Your task to perform on an android device: install app "Google Home" Image 0: 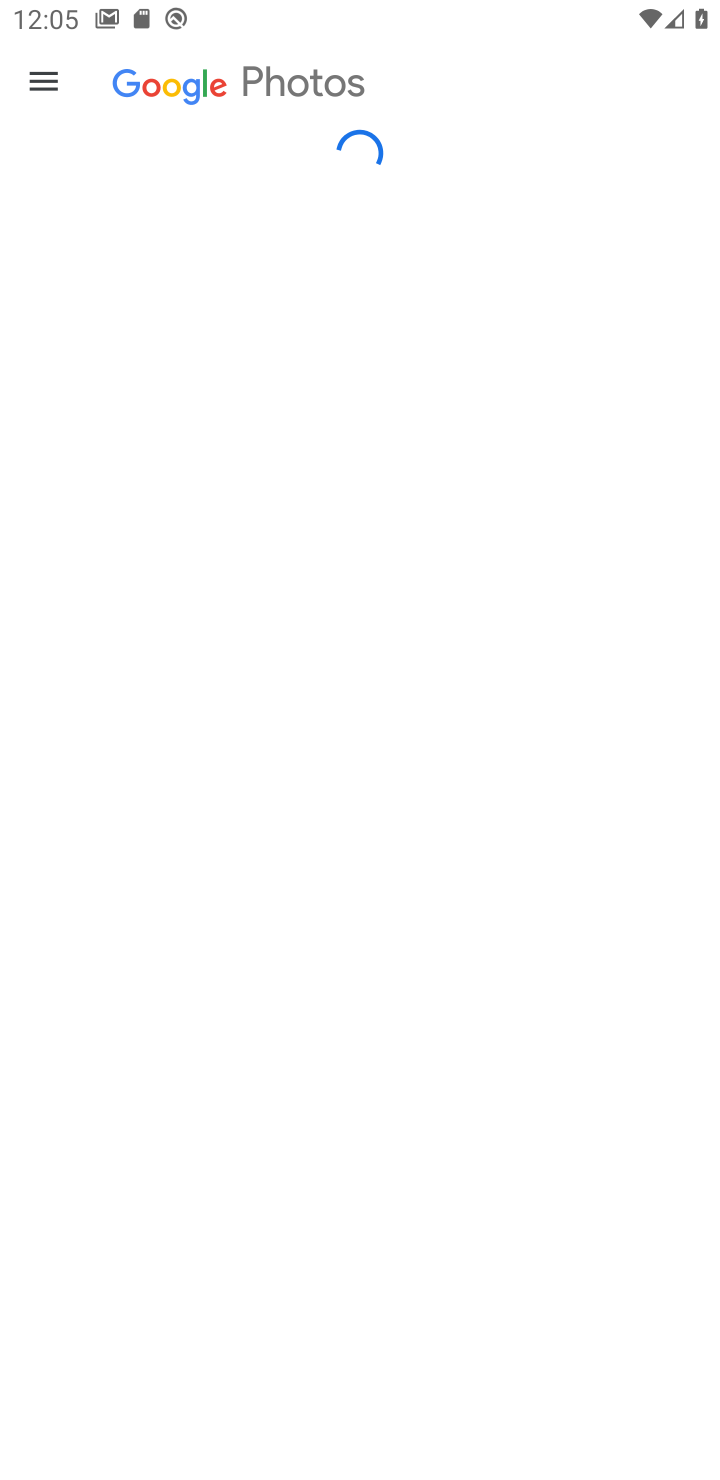
Step 0: press home button
Your task to perform on an android device: install app "Google Home" Image 1: 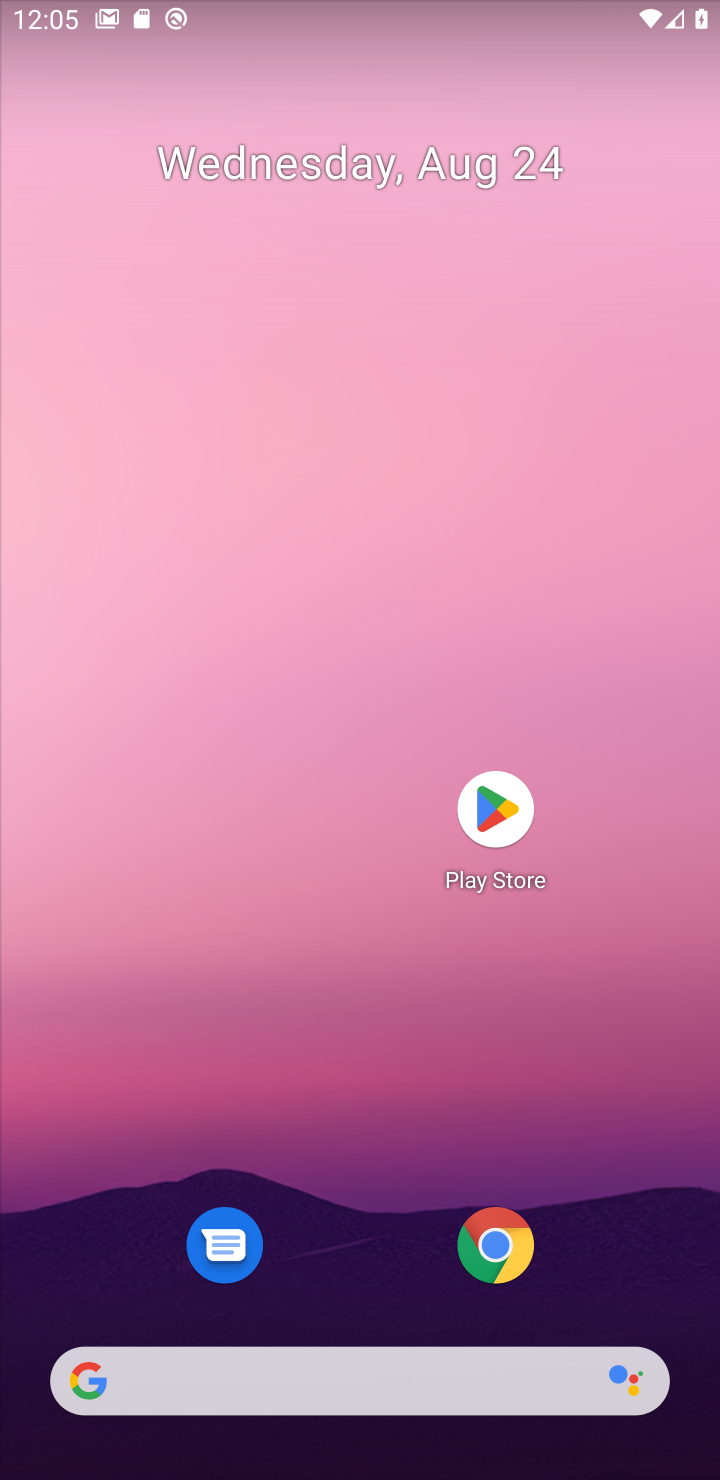
Step 1: click (493, 800)
Your task to perform on an android device: install app "Google Home" Image 2: 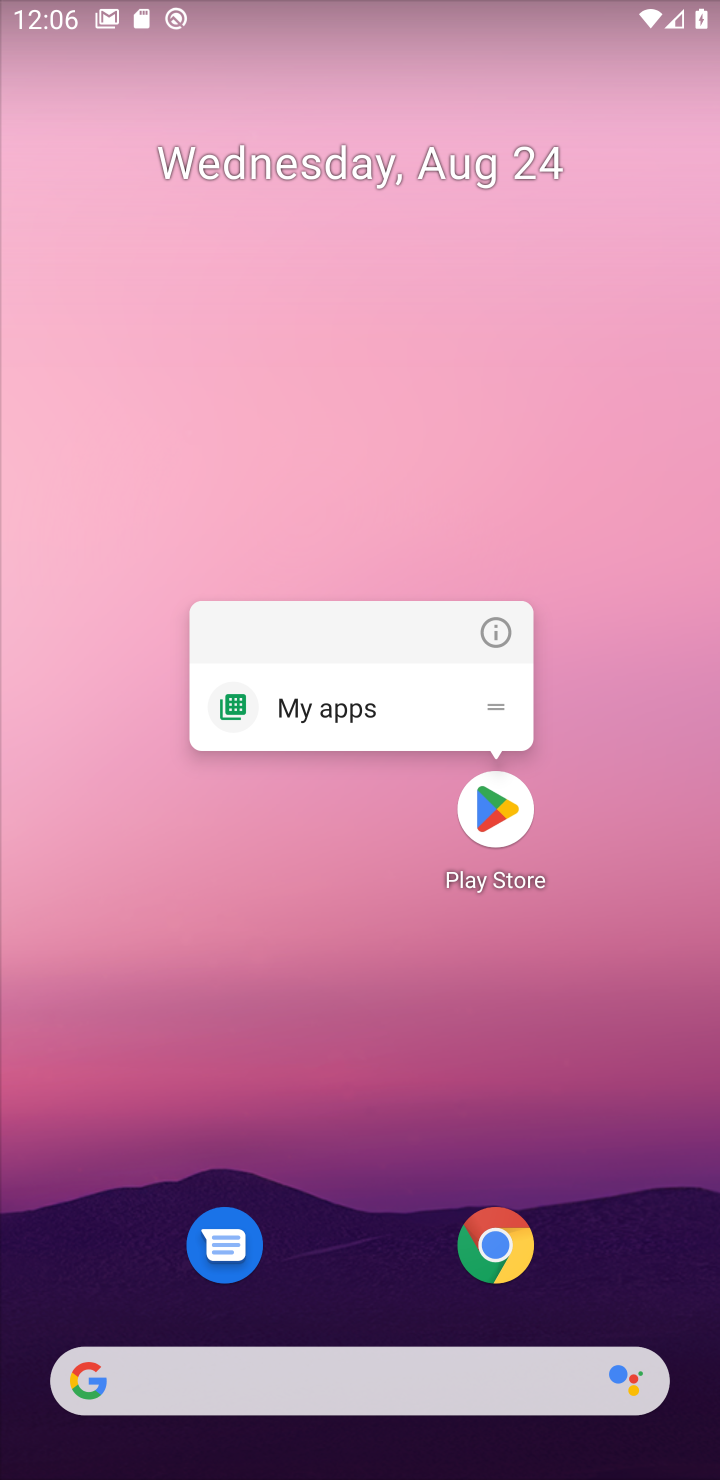
Step 2: click (493, 805)
Your task to perform on an android device: install app "Google Home" Image 3: 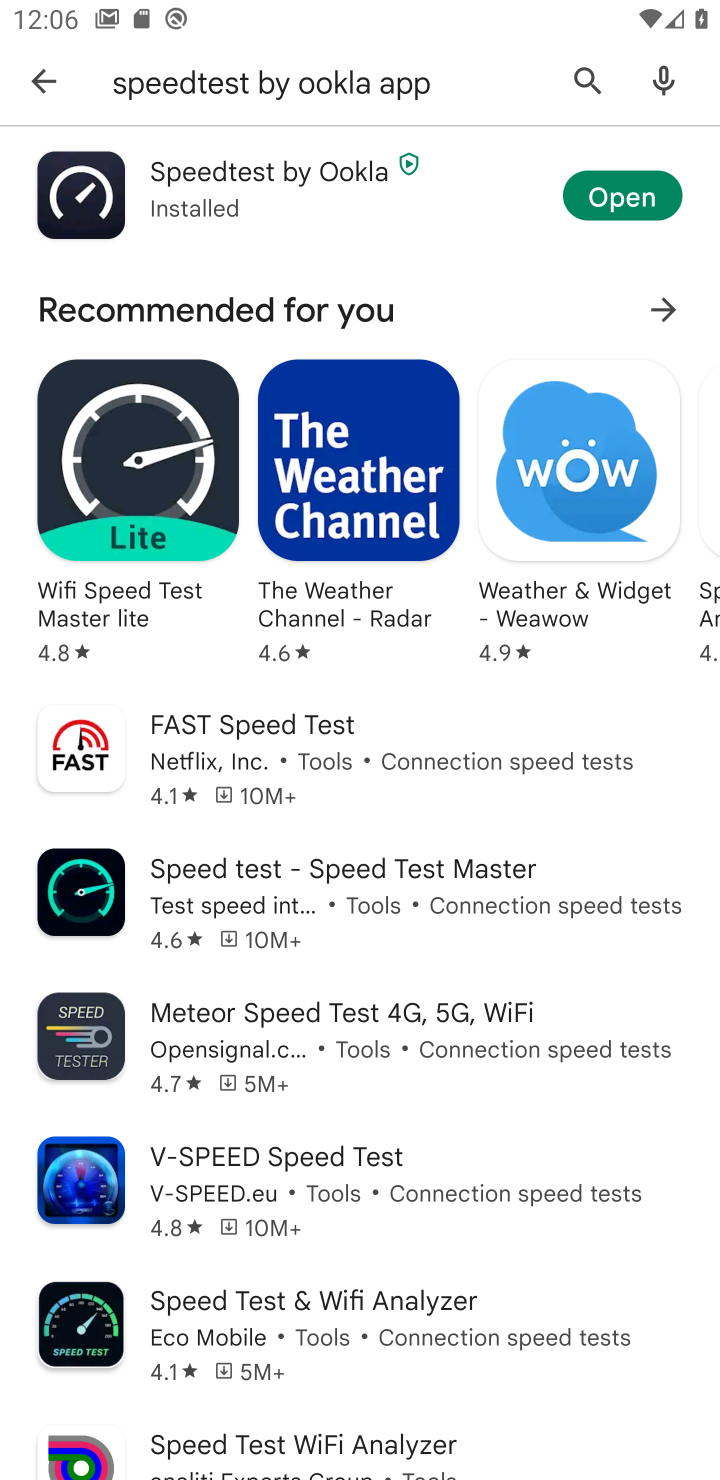
Step 3: click (587, 67)
Your task to perform on an android device: install app "Google Home" Image 4: 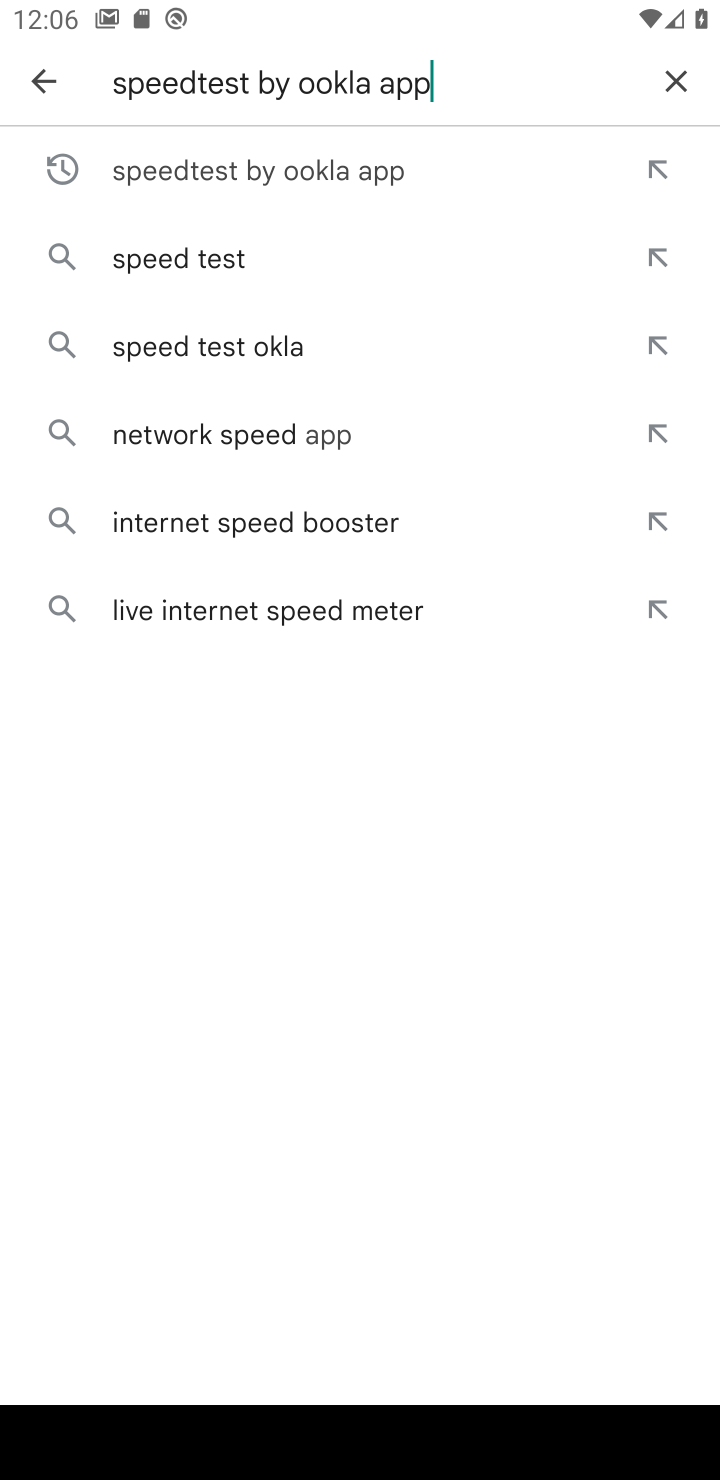
Step 4: click (672, 73)
Your task to perform on an android device: install app "Google Home" Image 5: 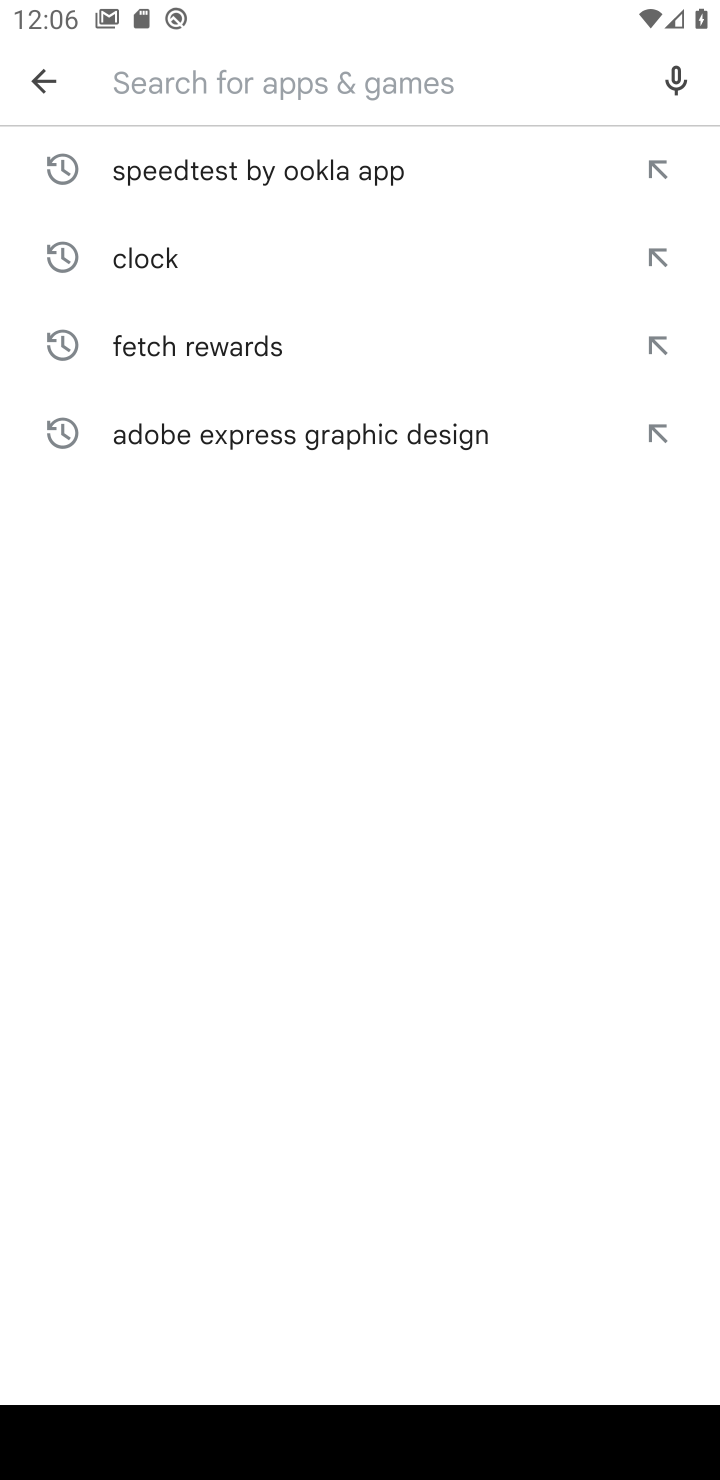
Step 5: type "Google Home"
Your task to perform on an android device: install app "Google Home" Image 6: 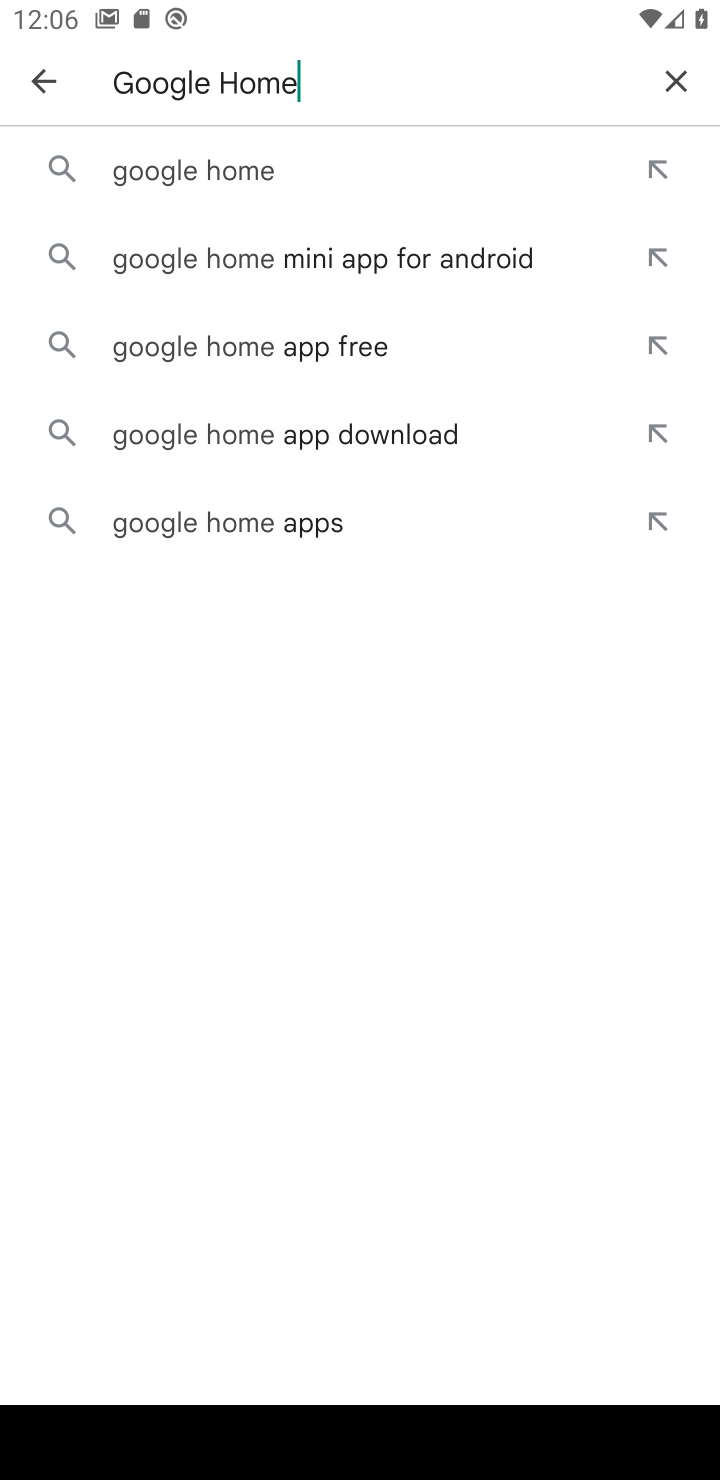
Step 6: click (245, 178)
Your task to perform on an android device: install app "Google Home" Image 7: 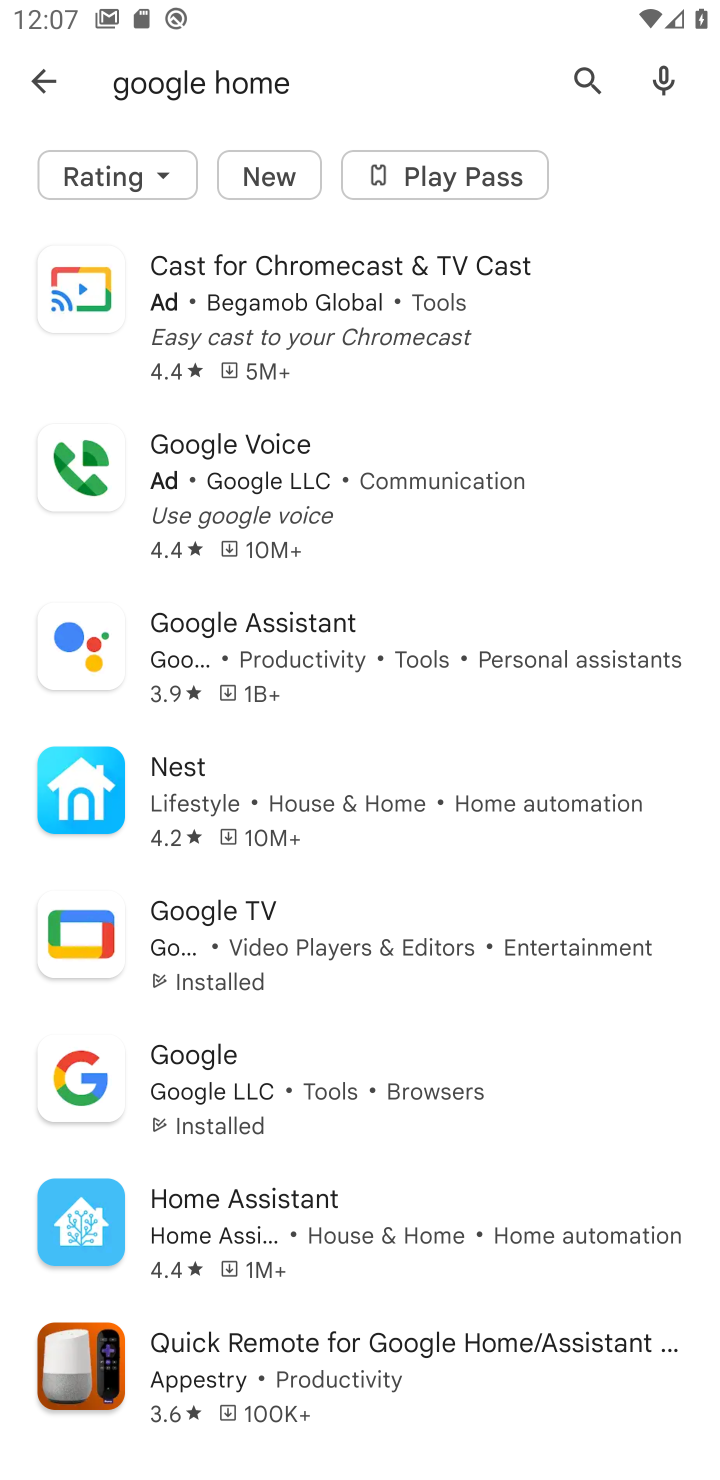
Step 7: task complete